Your task to perform on an android device: Open Wikipedia Image 0: 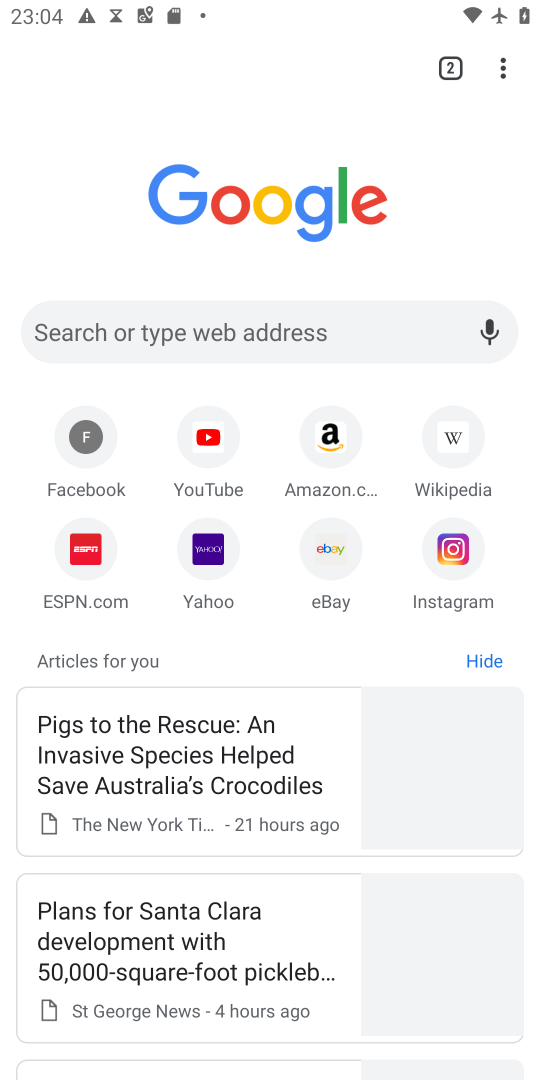
Step 0: press home button
Your task to perform on an android device: Open Wikipedia Image 1: 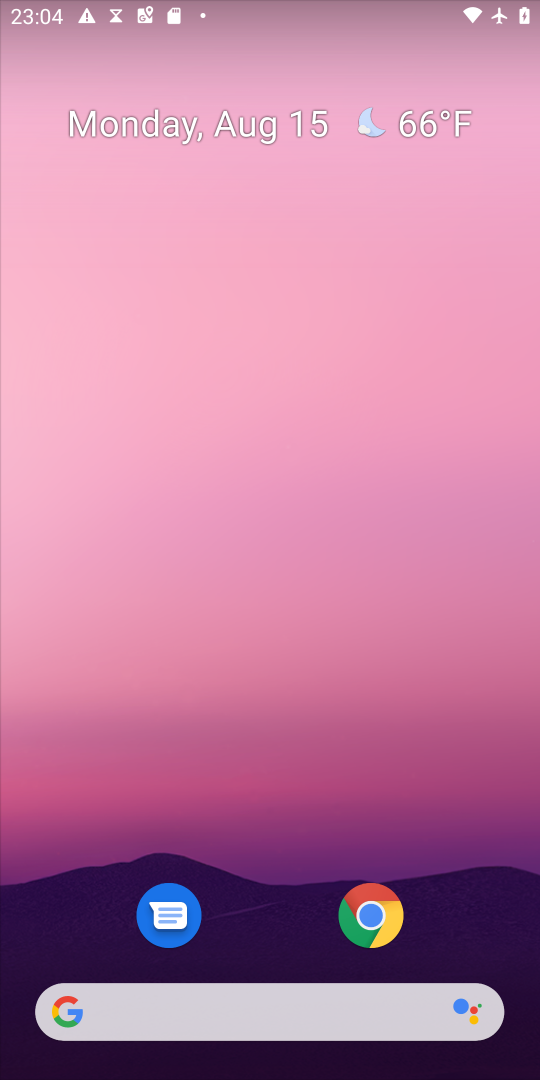
Step 1: click (62, 1011)
Your task to perform on an android device: Open Wikipedia Image 2: 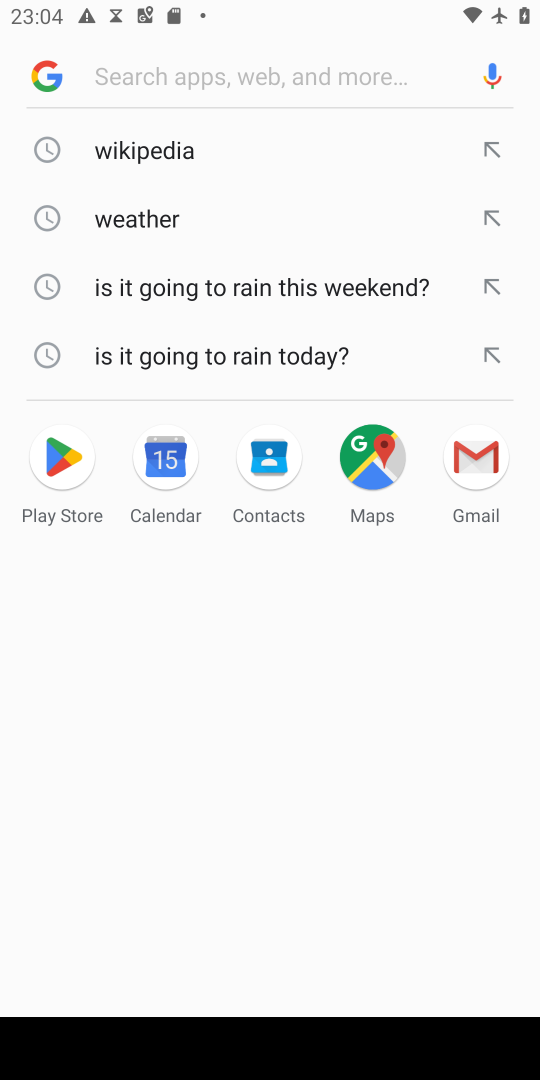
Step 2: click (125, 156)
Your task to perform on an android device: Open Wikipedia Image 3: 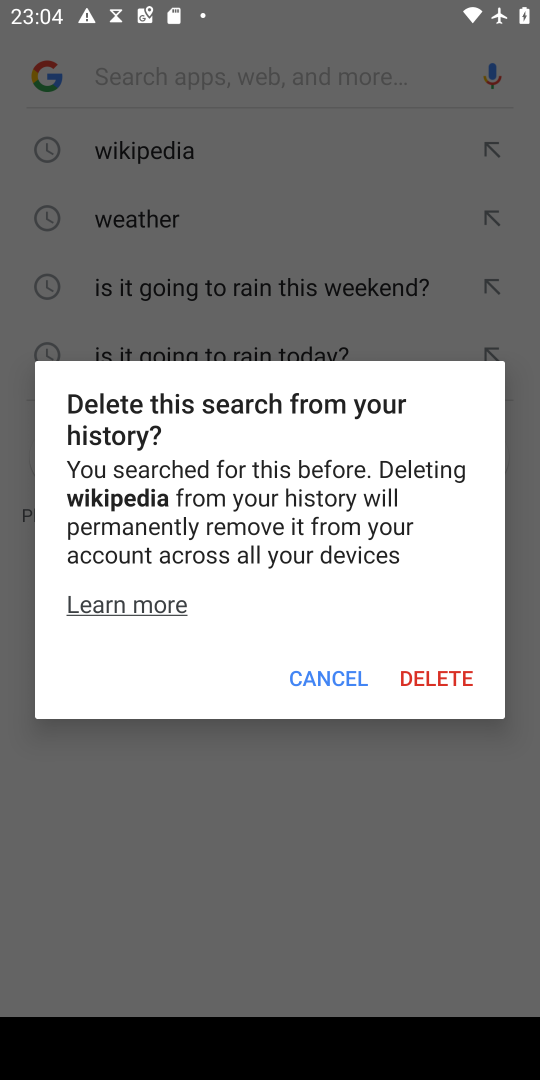
Step 3: click (343, 676)
Your task to perform on an android device: Open Wikipedia Image 4: 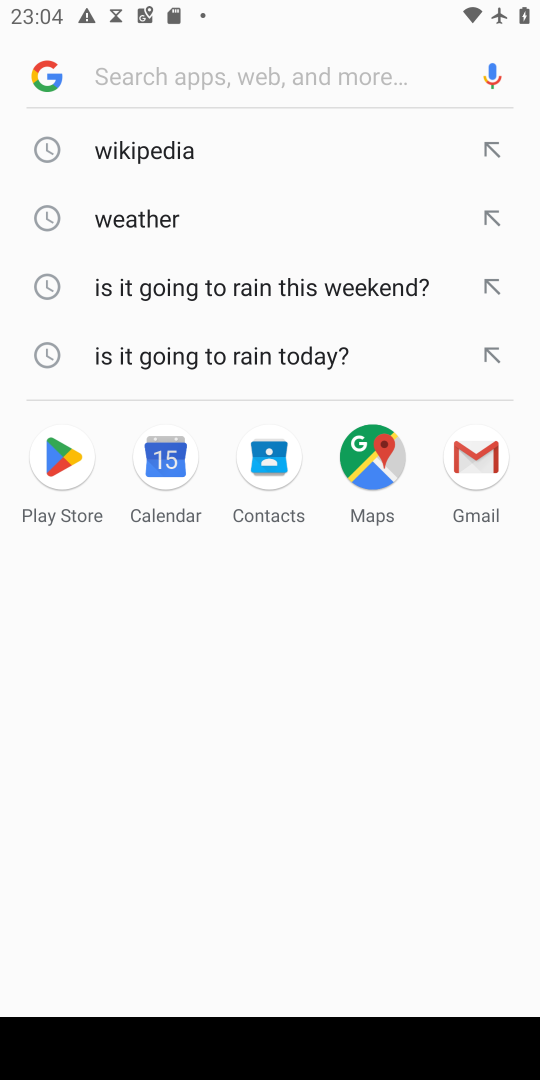
Step 4: type "Wikipedia"
Your task to perform on an android device: Open Wikipedia Image 5: 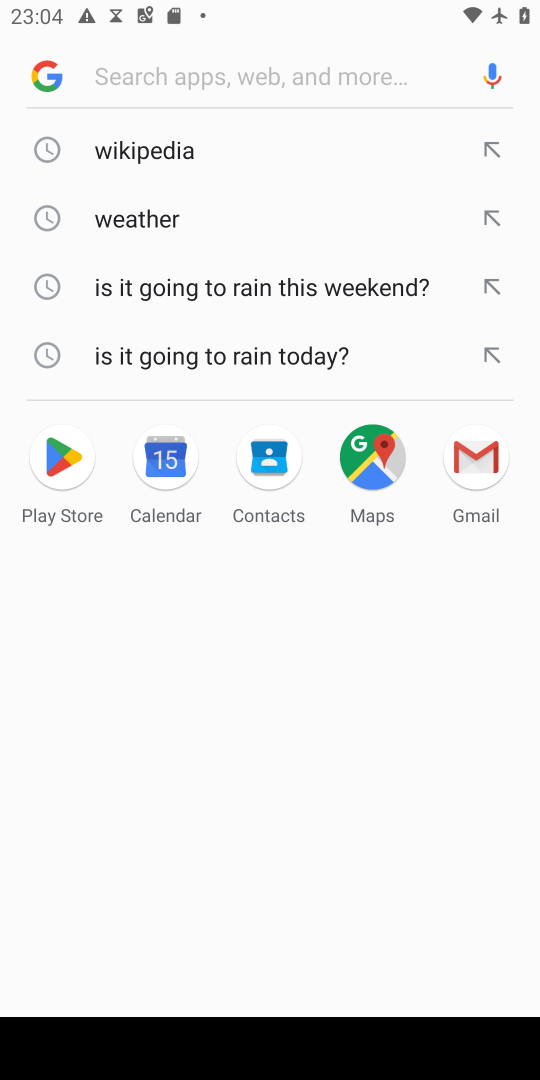
Step 5: click (146, 55)
Your task to perform on an android device: Open Wikipedia Image 6: 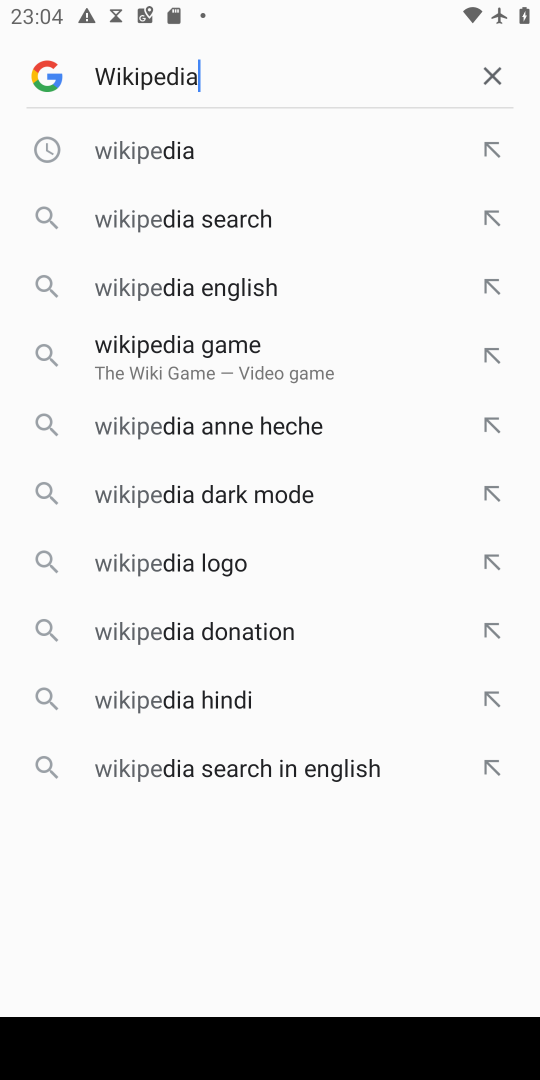
Step 6: press enter
Your task to perform on an android device: Open Wikipedia Image 7: 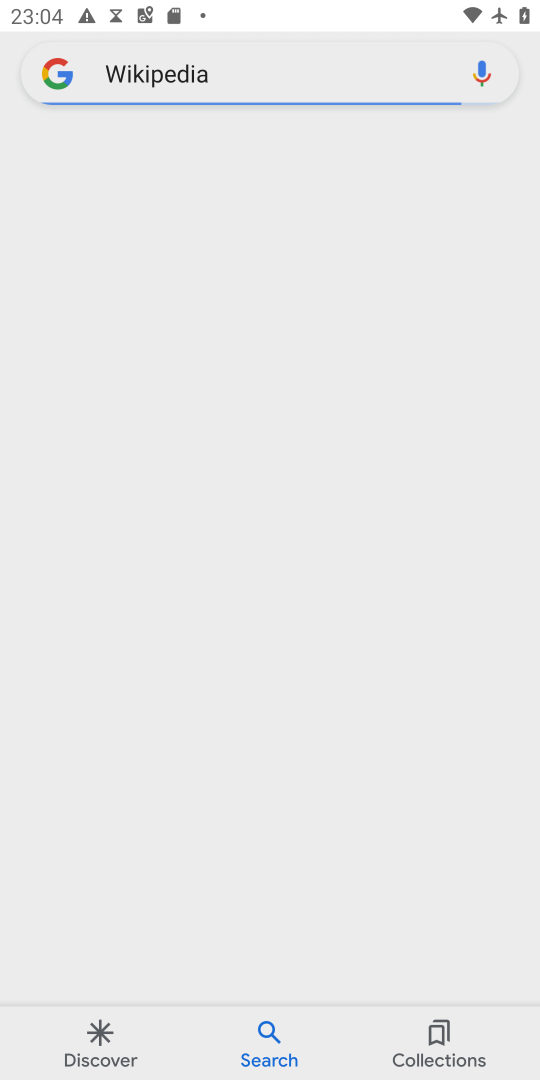
Step 7: press enter
Your task to perform on an android device: Open Wikipedia Image 8: 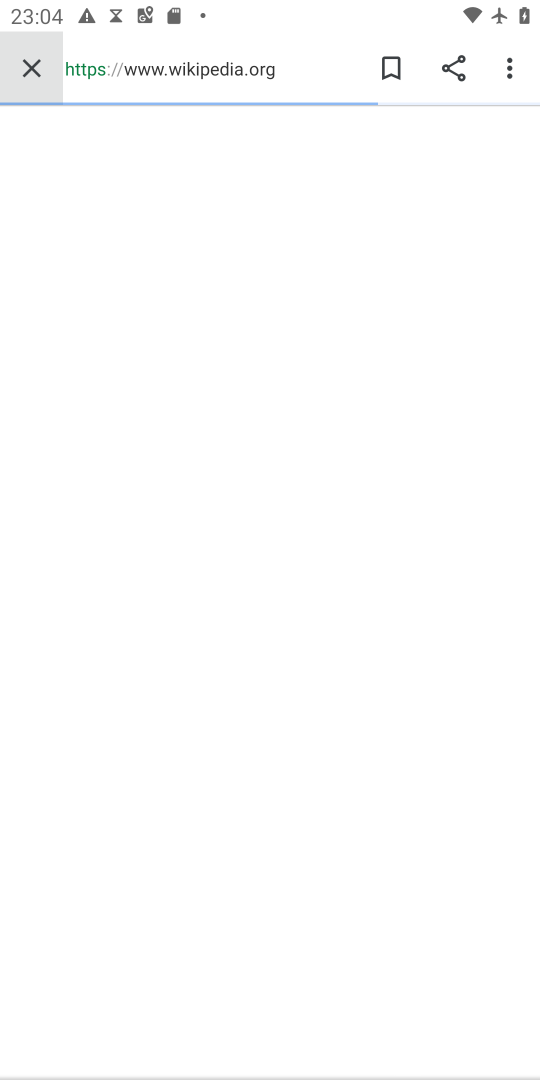
Step 8: click (96, 328)
Your task to perform on an android device: Open Wikipedia Image 9: 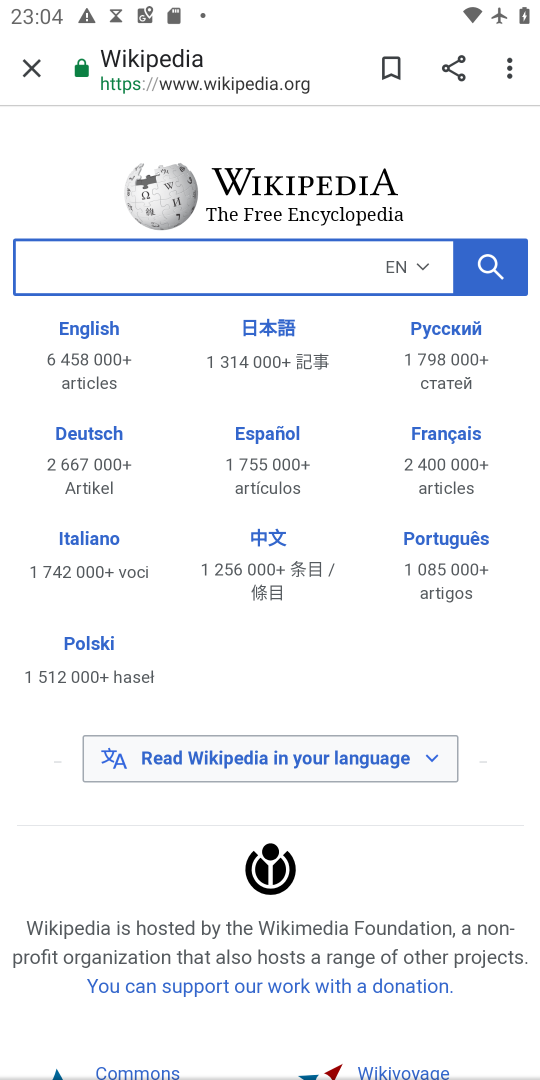
Step 9: task complete